Your task to perform on an android device: Go to Wikipedia Image 0: 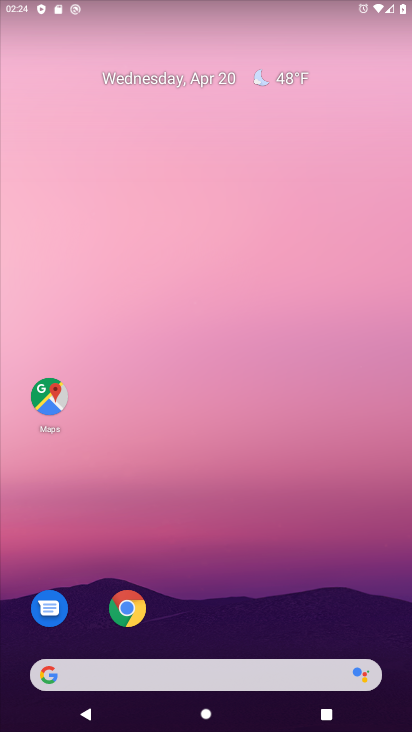
Step 0: click (128, 600)
Your task to perform on an android device: Go to Wikipedia Image 1: 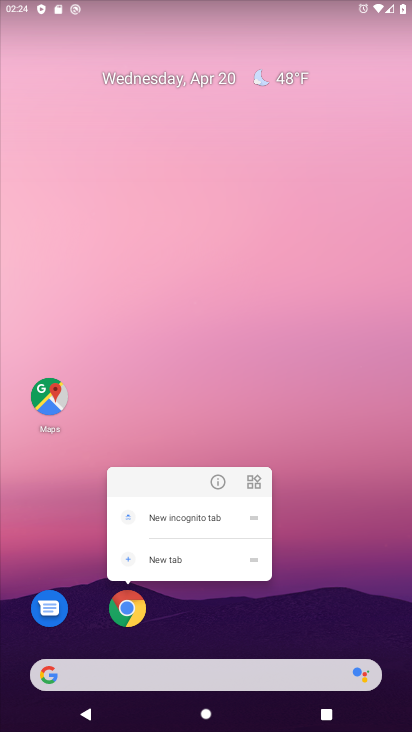
Step 1: click (132, 606)
Your task to perform on an android device: Go to Wikipedia Image 2: 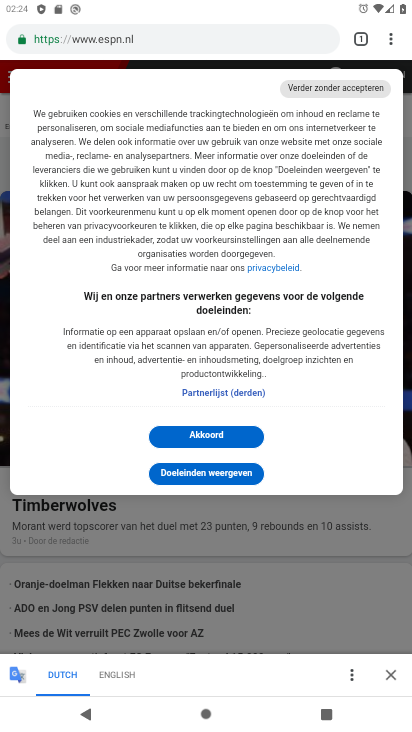
Step 2: click (102, 44)
Your task to perform on an android device: Go to Wikipedia Image 3: 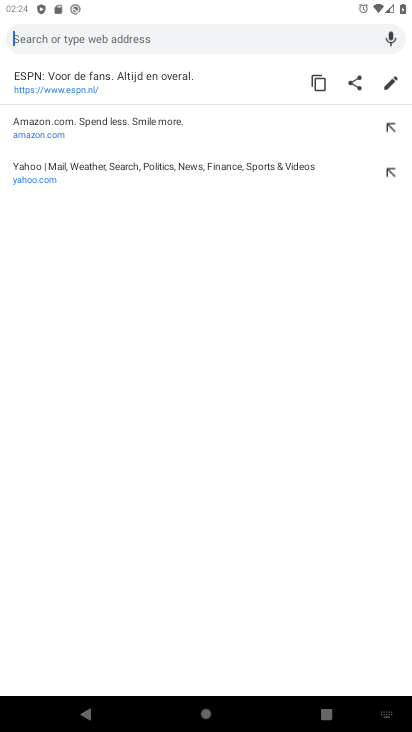
Step 3: type "wikipedia"
Your task to perform on an android device: Go to Wikipedia Image 4: 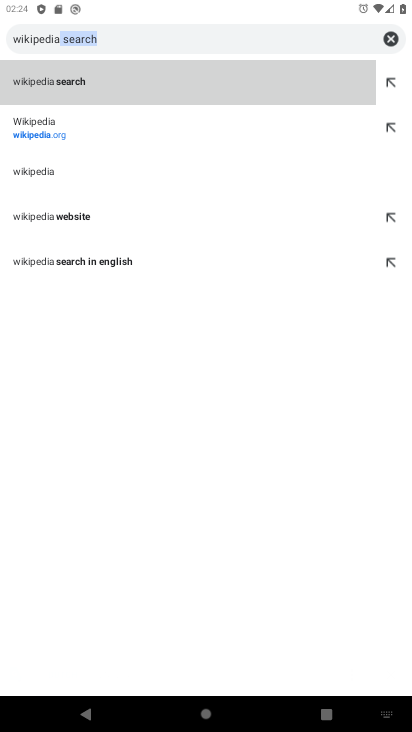
Step 4: click (33, 115)
Your task to perform on an android device: Go to Wikipedia Image 5: 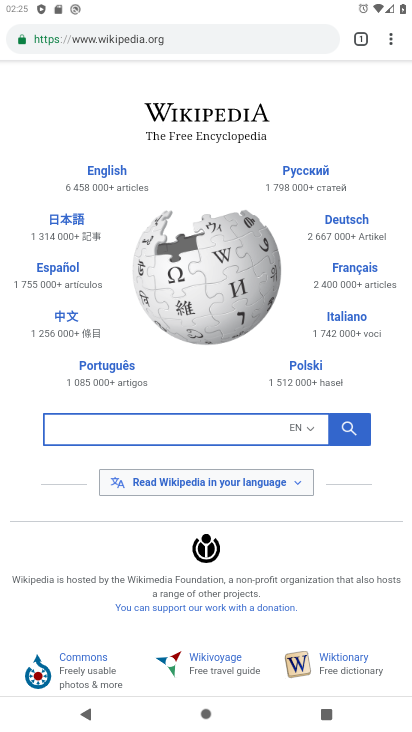
Step 5: task complete